Your task to perform on an android device: open app "McDonald's" Image 0: 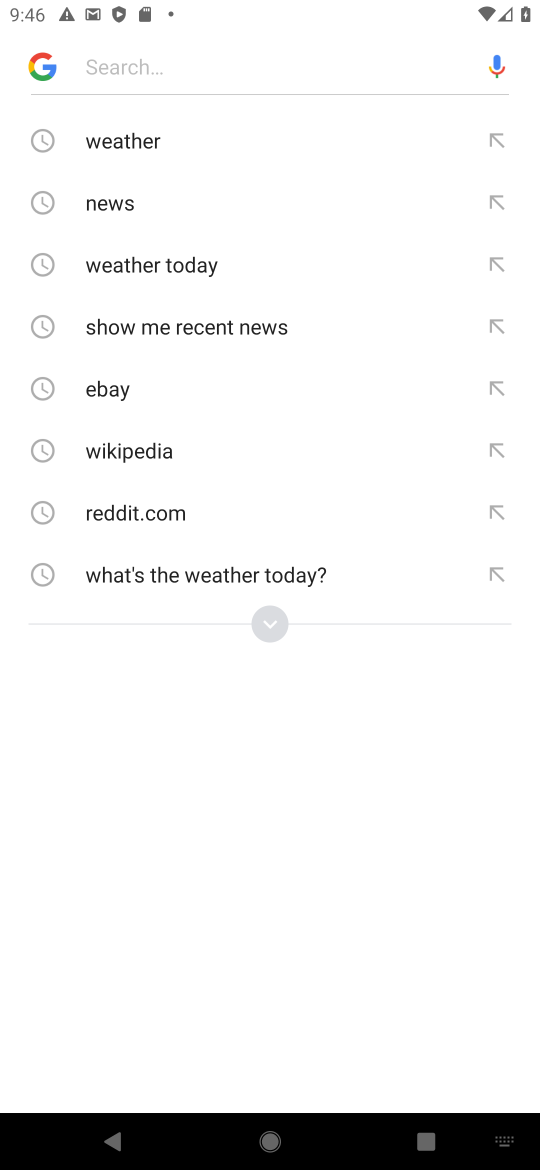
Step 0: press home button
Your task to perform on an android device: open app "McDonald's" Image 1: 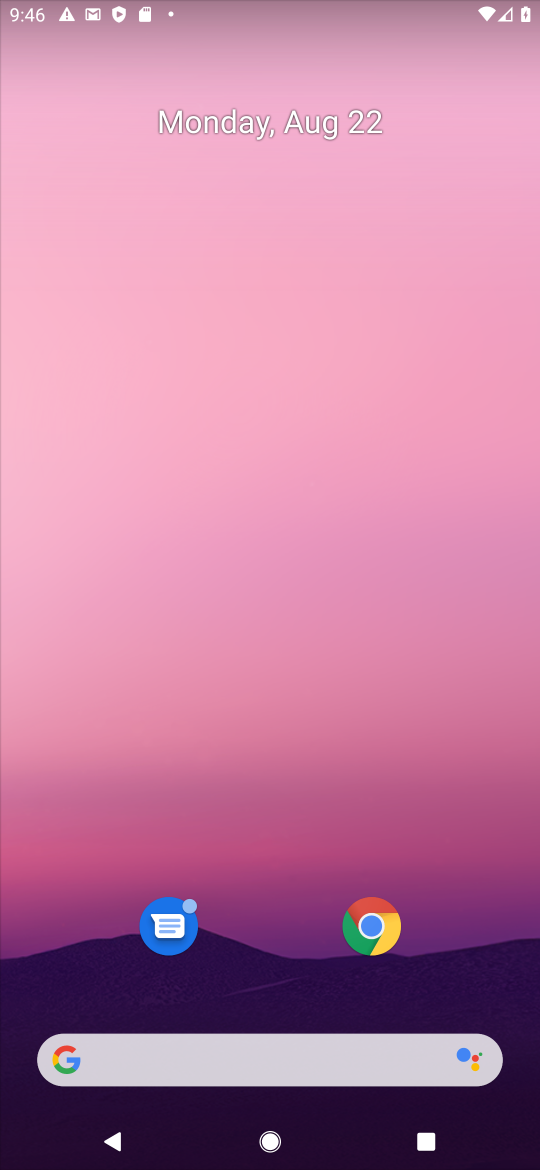
Step 1: drag from (311, 159) to (316, 12)
Your task to perform on an android device: open app "McDonald's" Image 2: 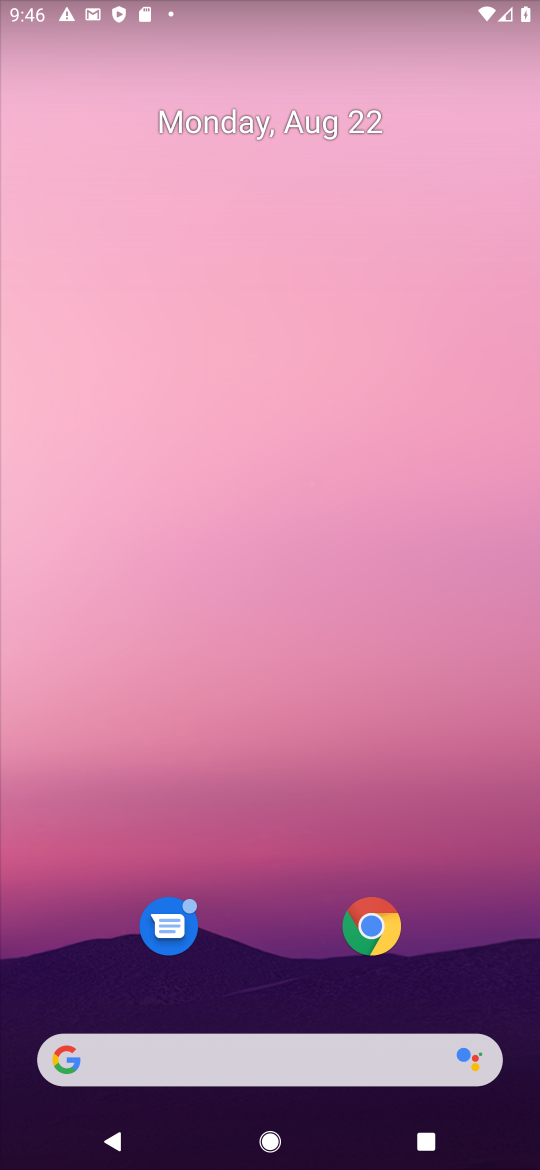
Step 2: drag from (212, 696) to (284, 18)
Your task to perform on an android device: open app "McDonald's" Image 3: 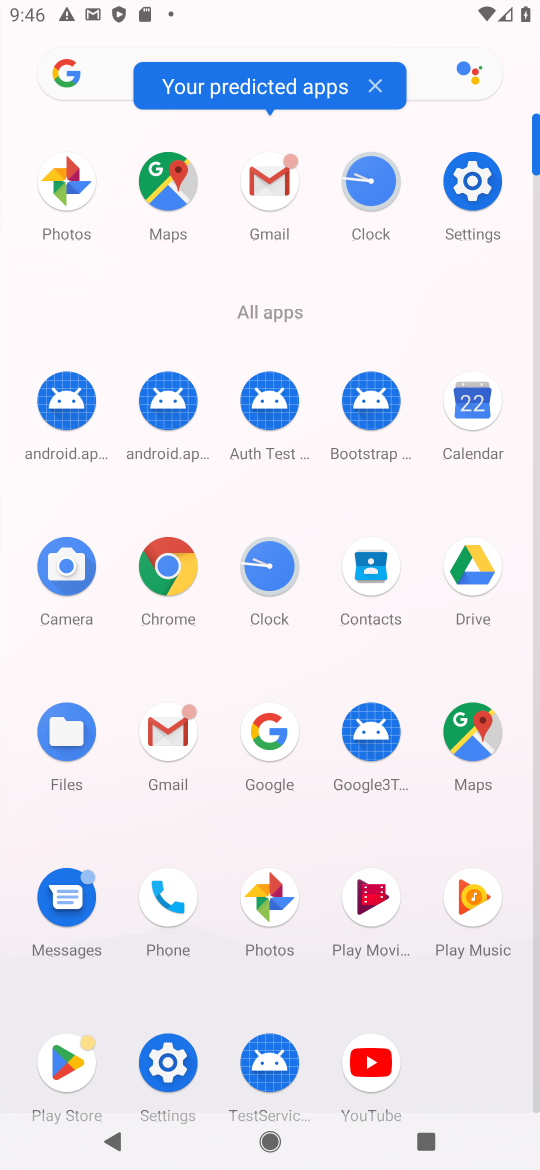
Step 3: click (72, 1063)
Your task to perform on an android device: open app "McDonald's" Image 4: 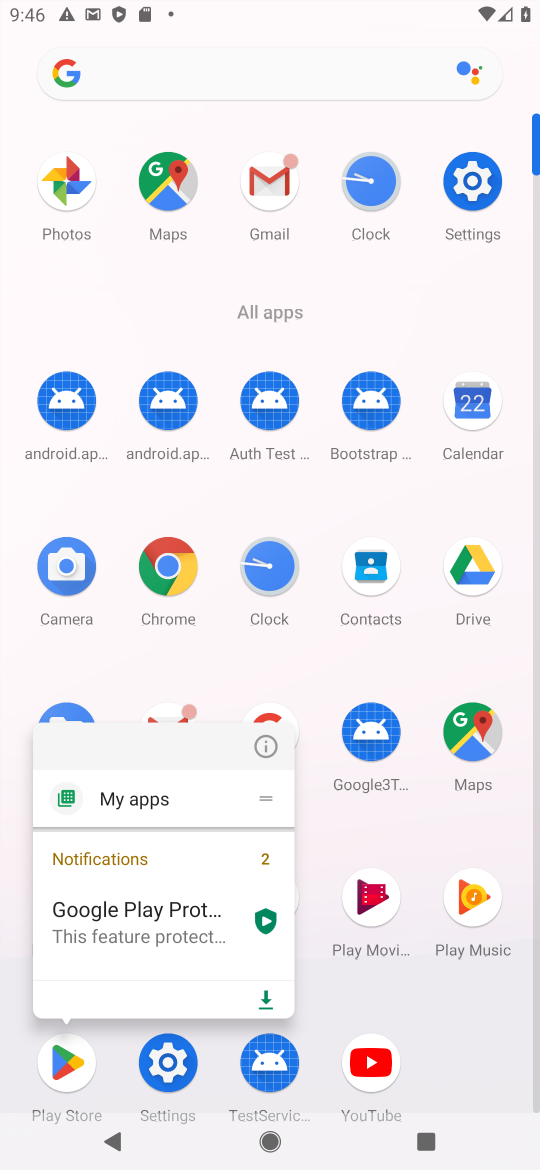
Step 4: click (64, 1070)
Your task to perform on an android device: open app "McDonald's" Image 5: 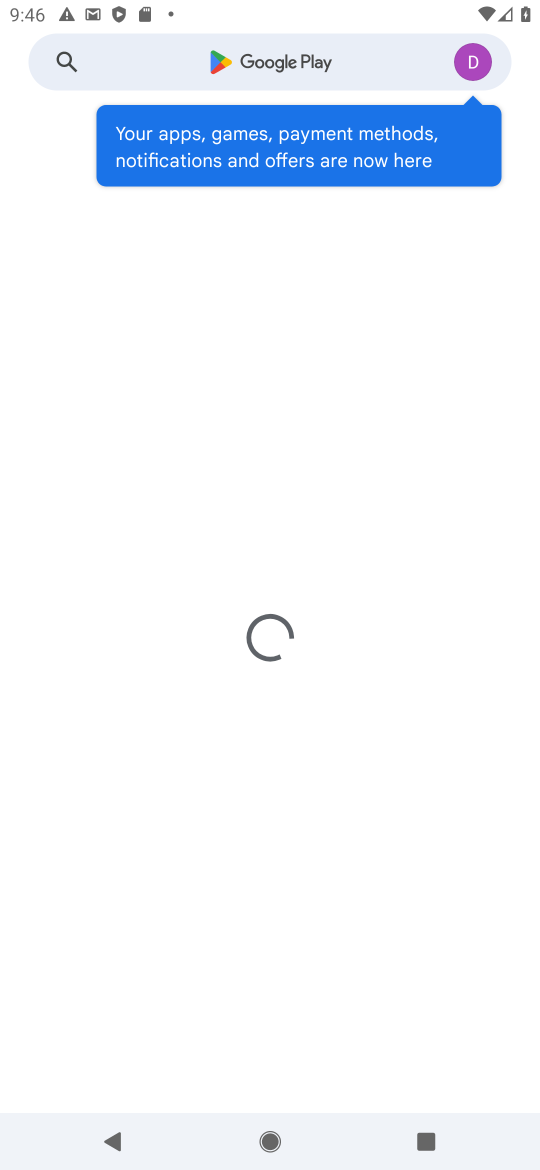
Step 5: click (236, 71)
Your task to perform on an android device: open app "McDonald's" Image 6: 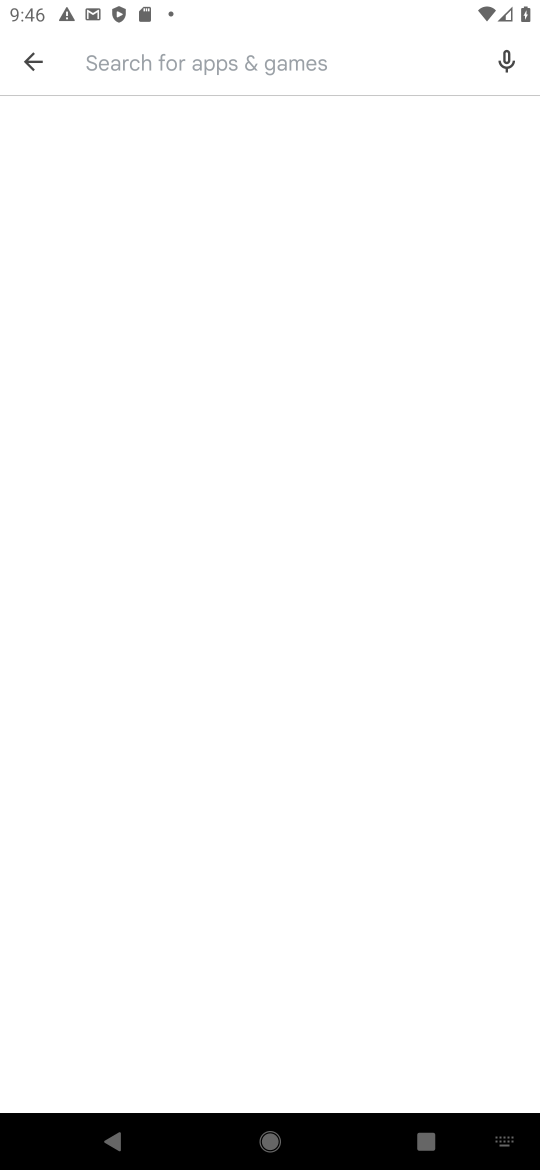
Step 6: type "McDonald's"
Your task to perform on an android device: open app "McDonald's" Image 7: 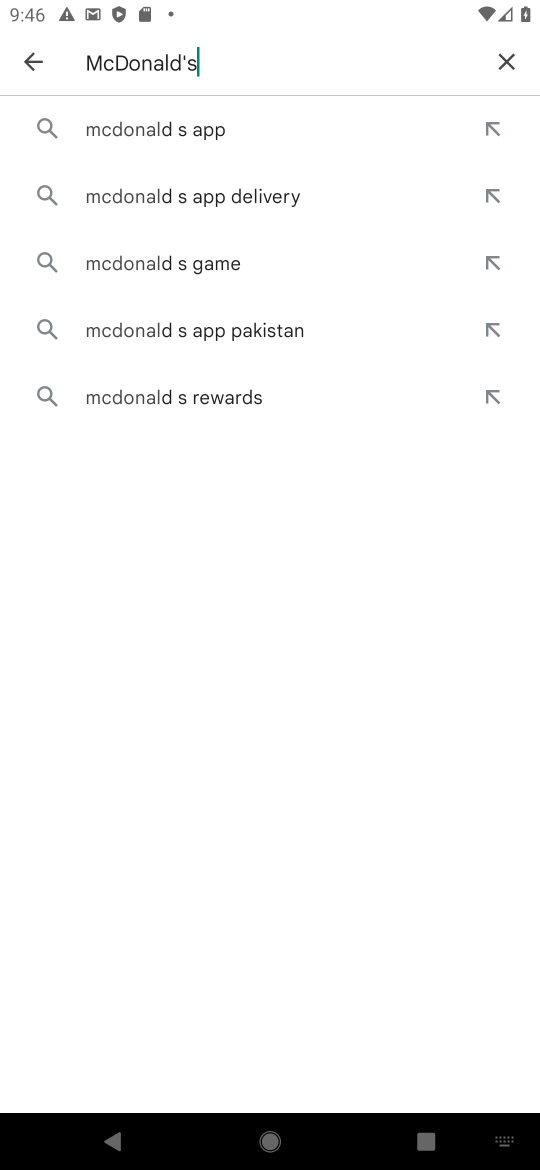
Step 7: press enter
Your task to perform on an android device: open app "McDonald's" Image 8: 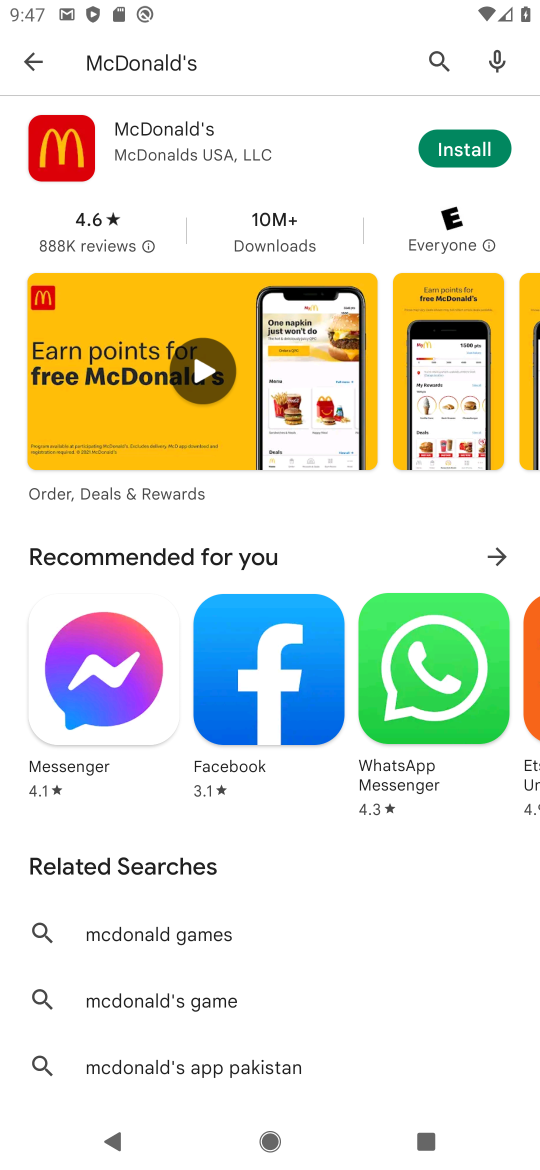
Step 8: task complete